Your task to perform on an android device: Open the stopwatch Image 0: 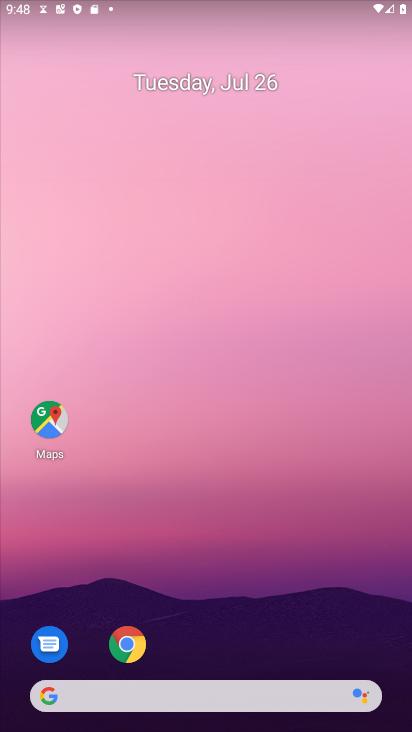
Step 0: drag from (231, 646) to (253, 15)
Your task to perform on an android device: Open the stopwatch Image 1: 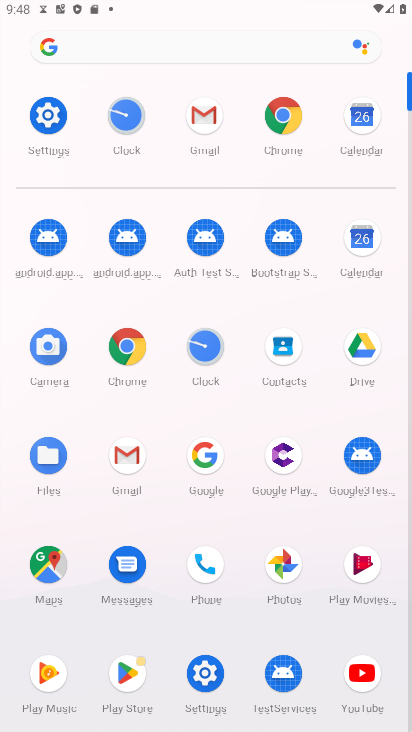
Step 1: click (207, 354)
Your task to perform on an android device: Open the stopwatch Image 2: 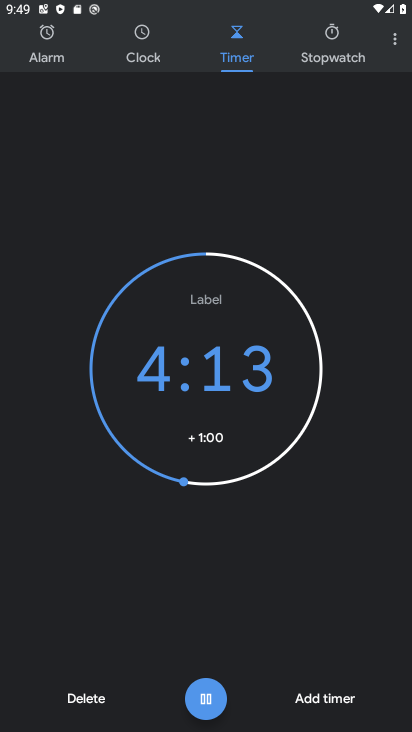
Step 2: click (316, 45)
Your task to perform on an android device: Open the stopwatch Image 3: 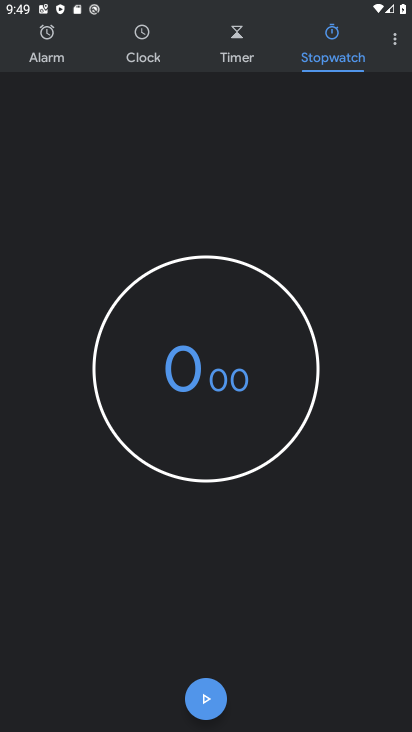
Step 3: click (211, 701)
Your task to perform on an android device: Open the stopwatch Image 4: 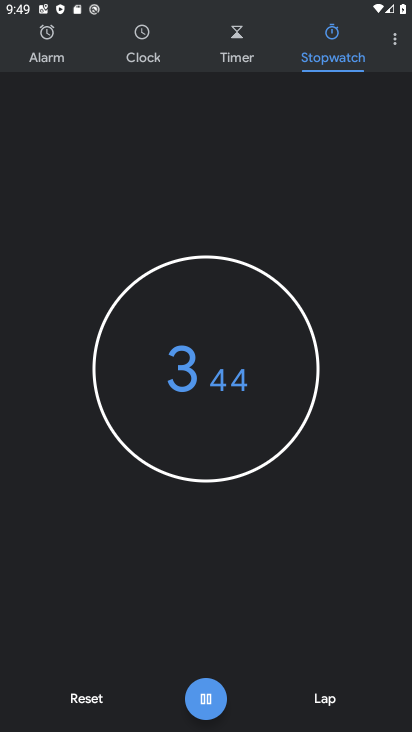
Step 4: task complete